Your task to perform on an android device: Clear the cart on target. Add "logitech g910" to the cart on target Image 0: 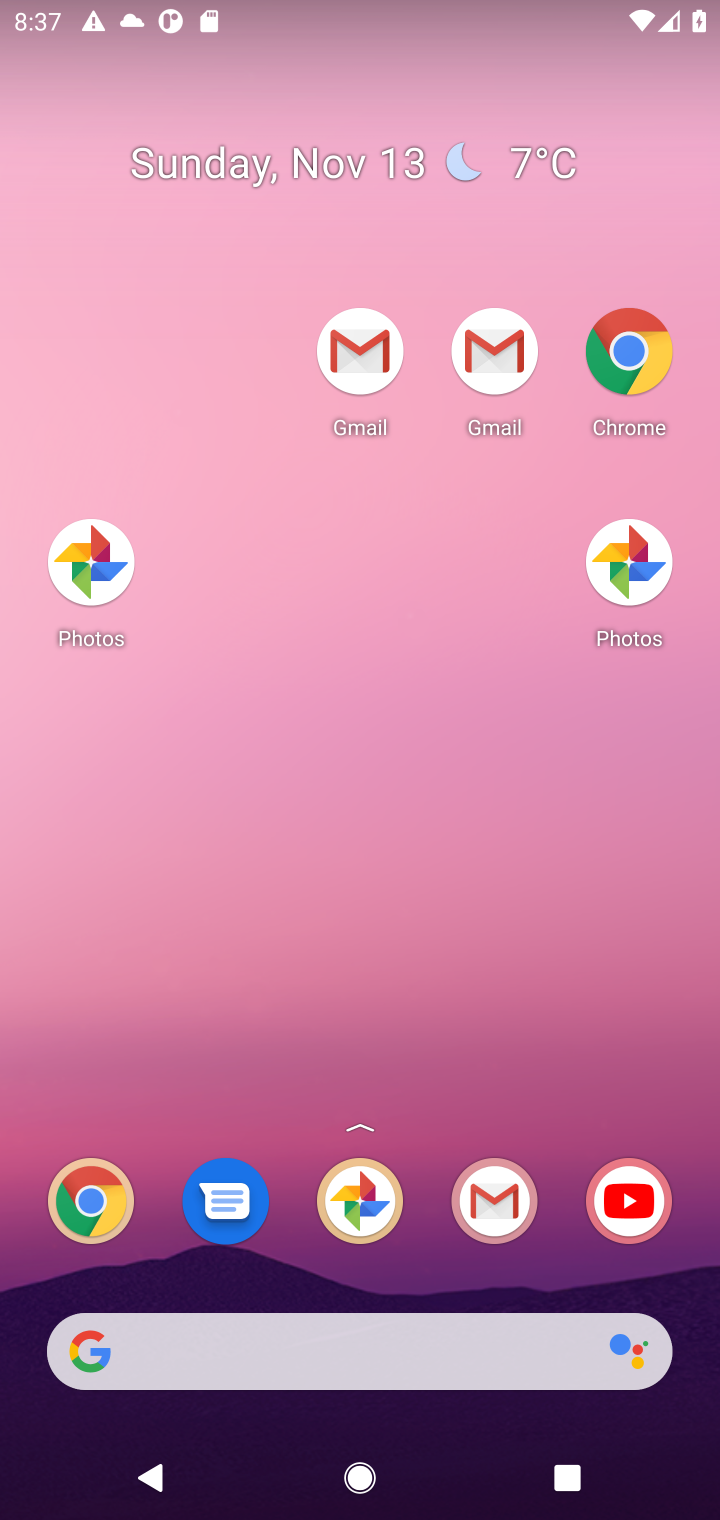
Step 0: drag from (443, 1103) to (255, 151)
Your task to perform on an android device: Clear the cart on target. Add "logitech g910" to the cart on target Image 1: 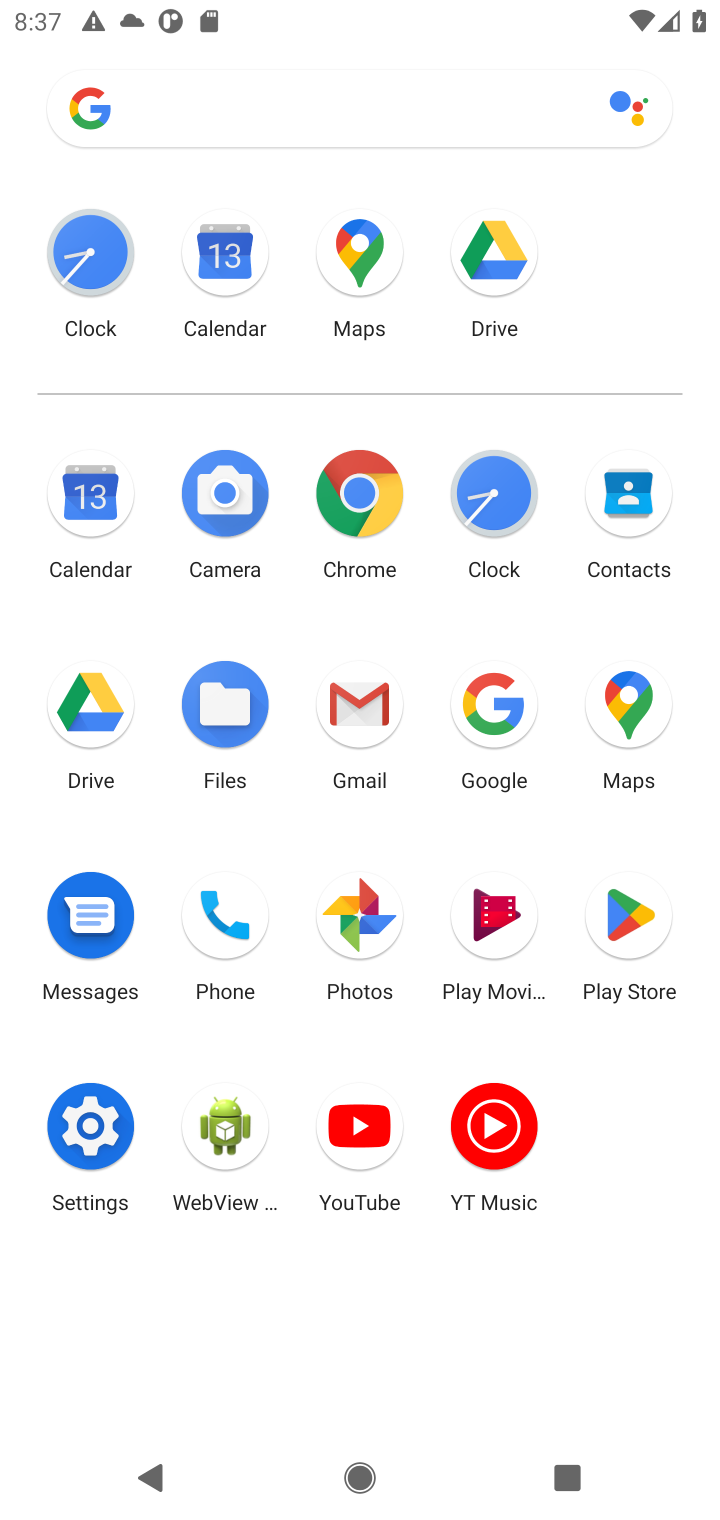
Step 1: click (358, 499)
Your task to perform on an android device: Clear the cart on target. Add "logitech g910" to the cart on target Image 2: 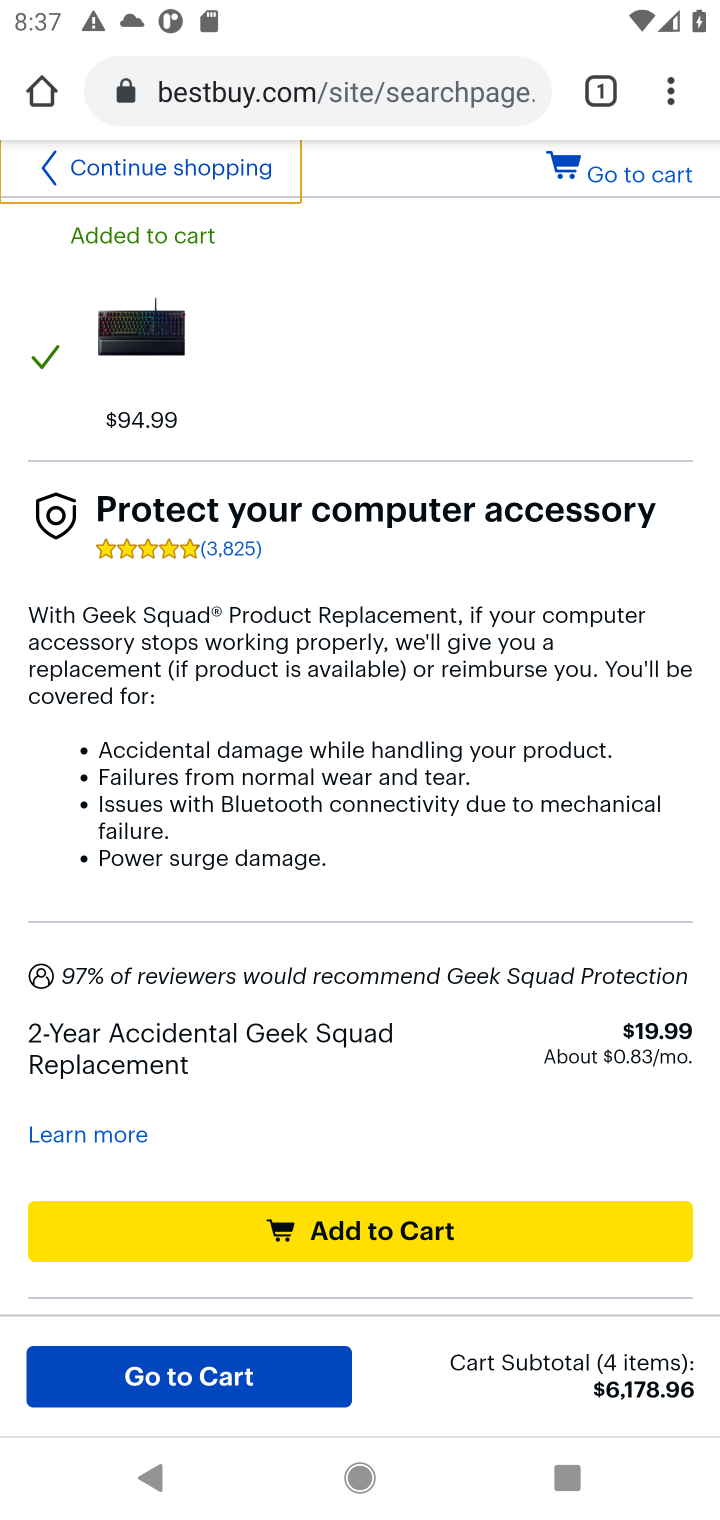
Step 2: click (366, 76)
Your task to perform on an android device: Clear the cart on target. Add "logitech g910" to the cart on target Image 3: 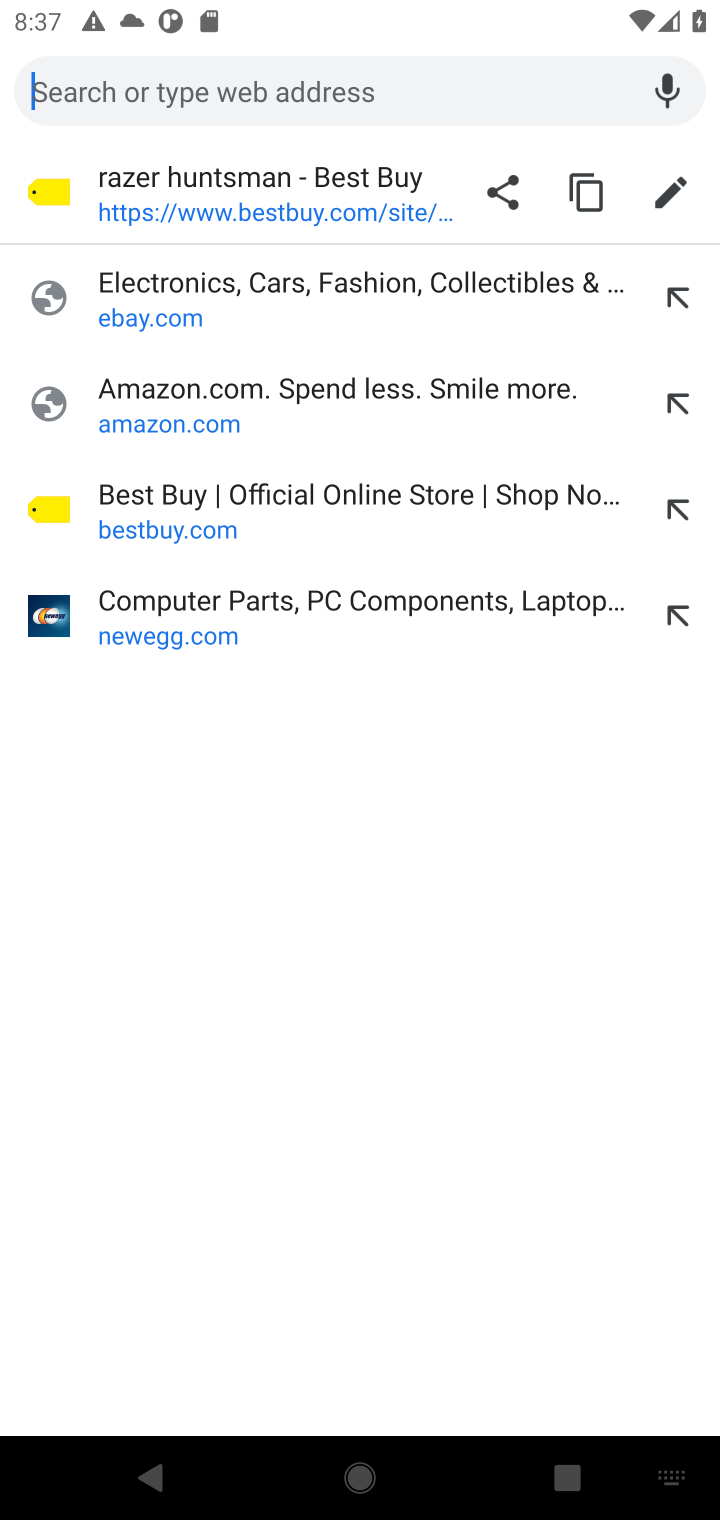
Step 3: type "target.com"
Your task to perform on an android device: Clear the cart on target. Add "logitech g910" to the cart on target Image 4: 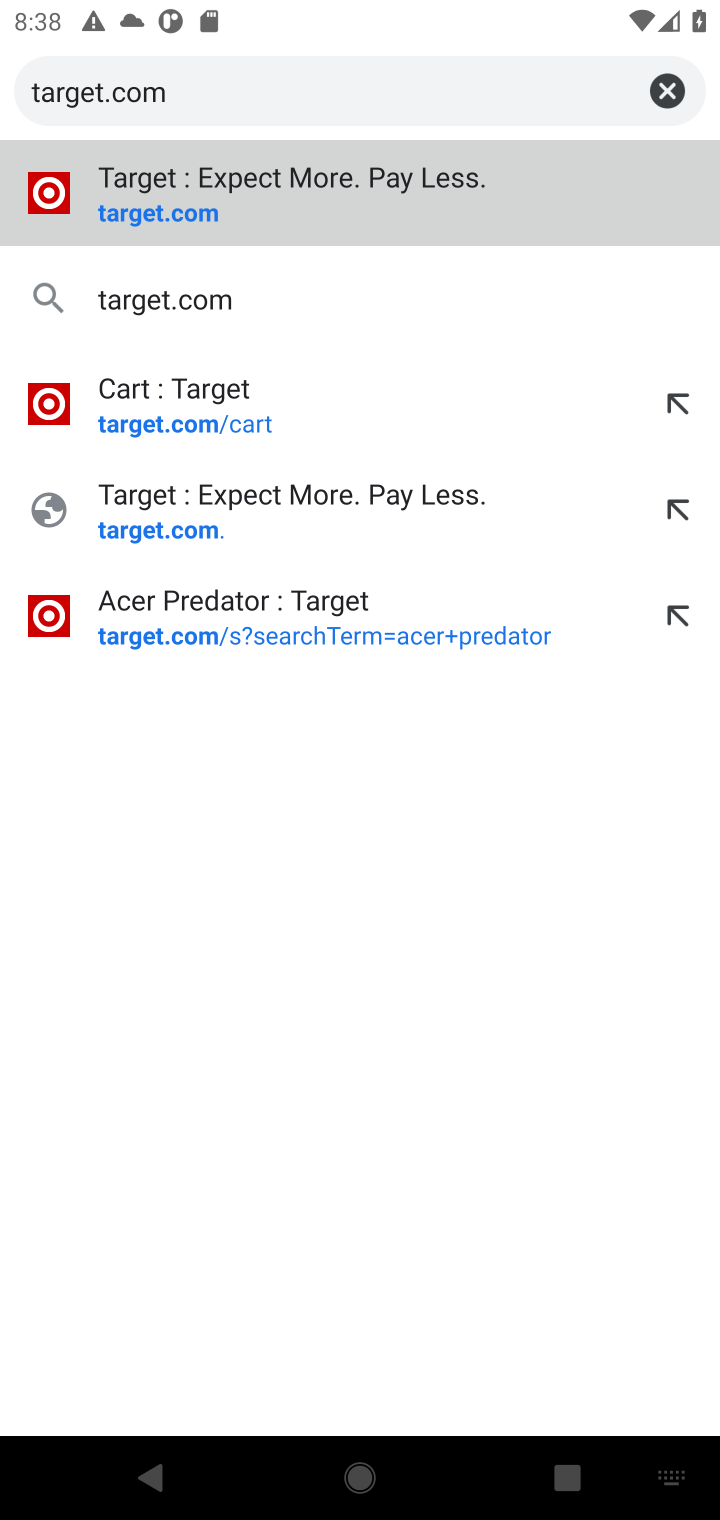
Step 4: press enter
Your task to perform on an android device: Clear the cart on target. Add "logitech g910" to the cart on target Image 5: 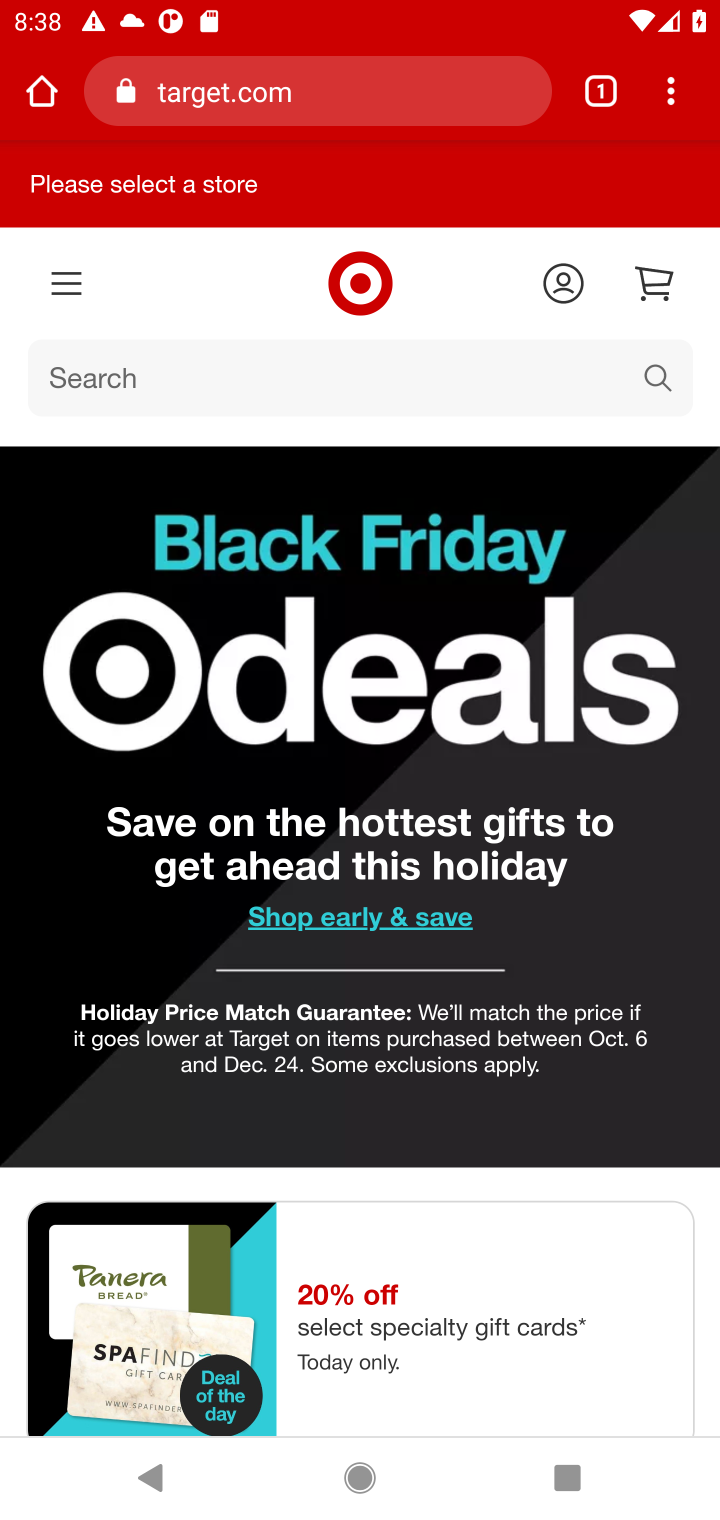
Step 5: click (661, 284)
Your task to perform on an android device: Clear the cart on target. Add "logitech g910" to the cart on target Image 6: 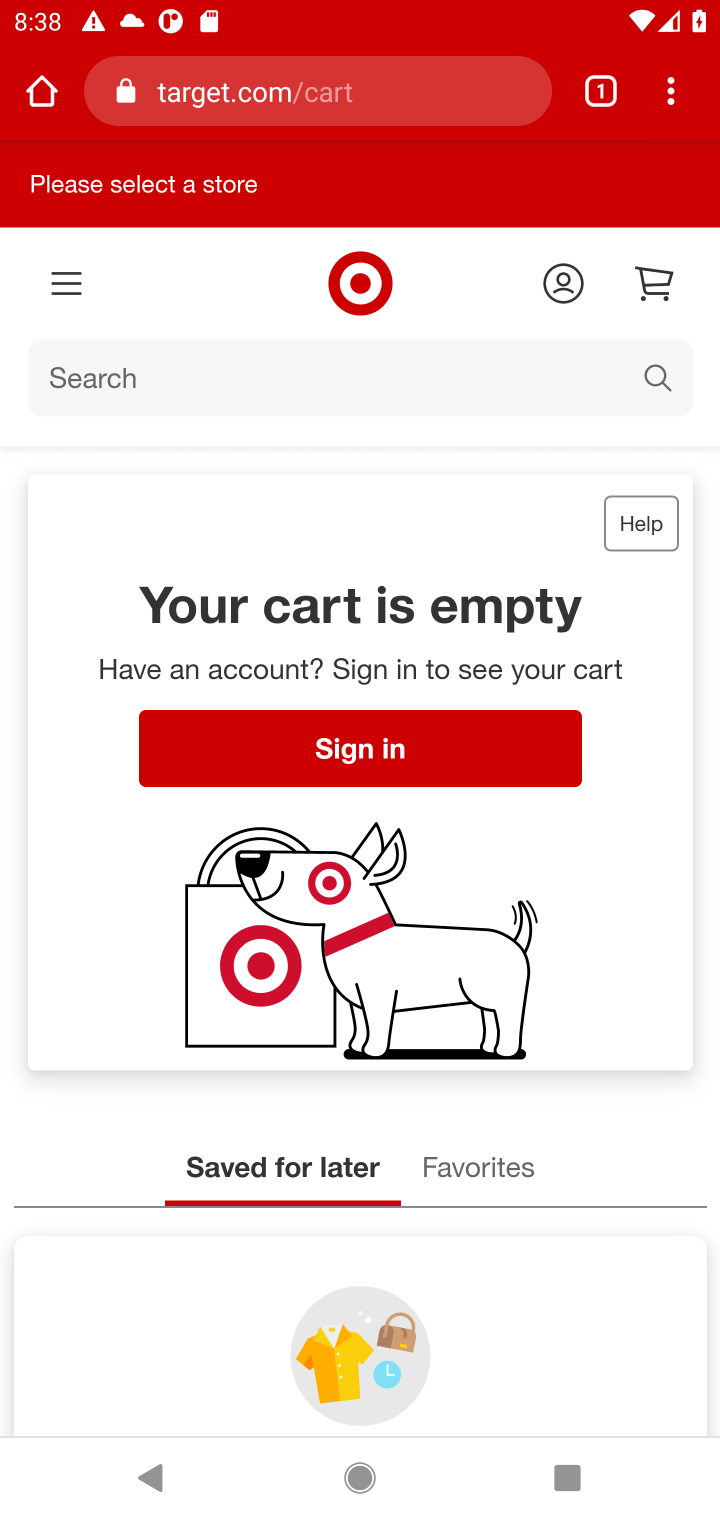
Step 6: click (471, 387)
Your task to perform on an android device: Clear the cart on target. Add "logitech g910" to the cart on target Image 7: 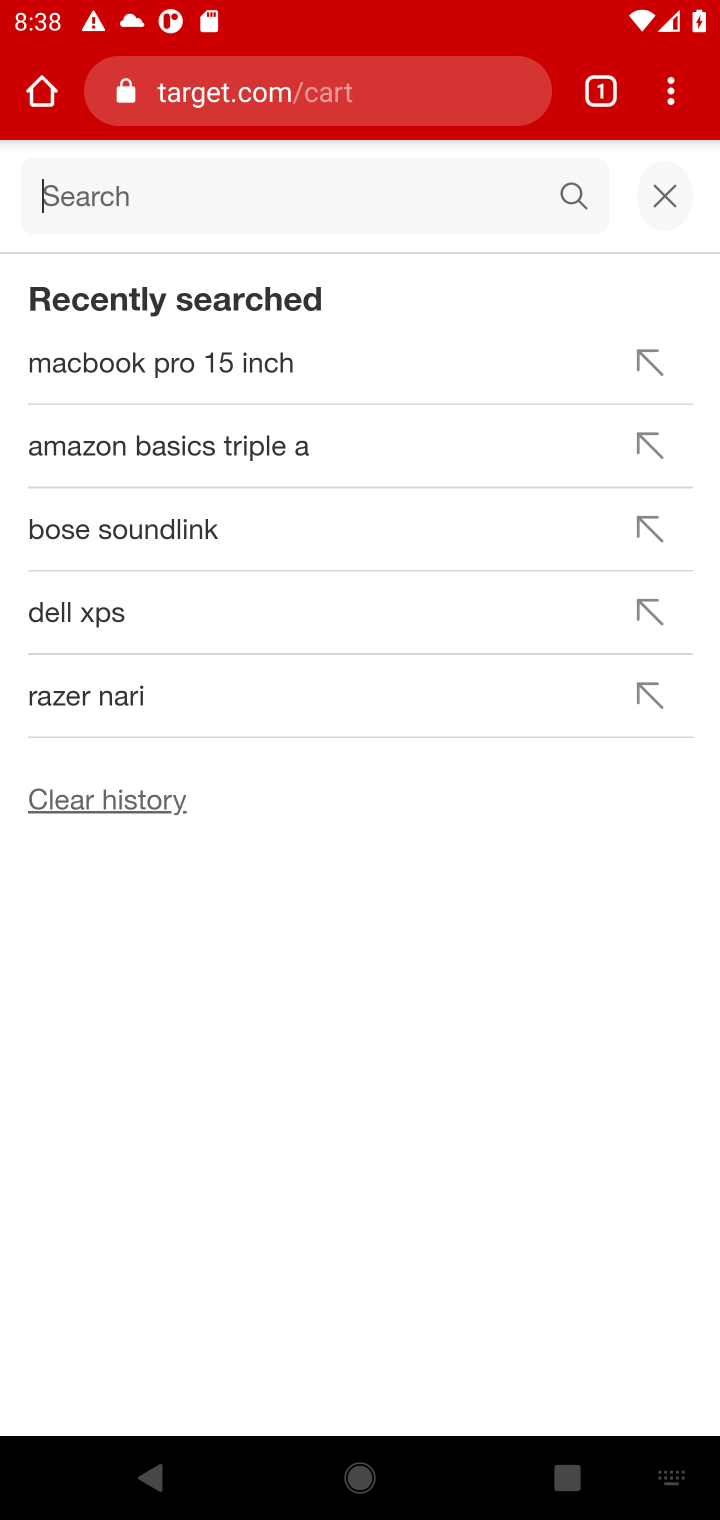
Step 7: type "logitech g910"
Your task to perform on an android device: Clear the cart on target. Add "logitech g910" to the cart on target Image 8: 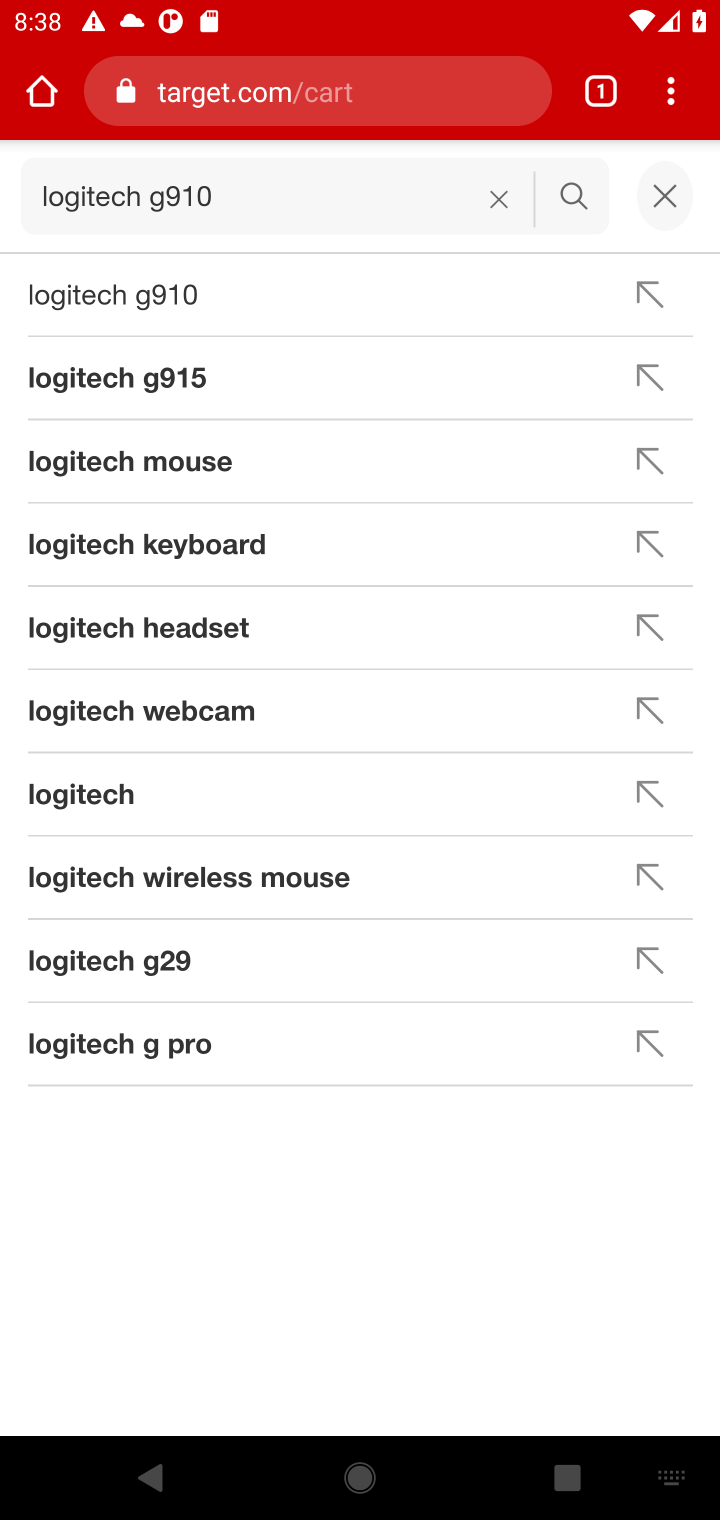
Step 8: press enter
Your task to perform on an android device: Clear the cart on target. Add "logitech g910" to the cart on target Image 9: 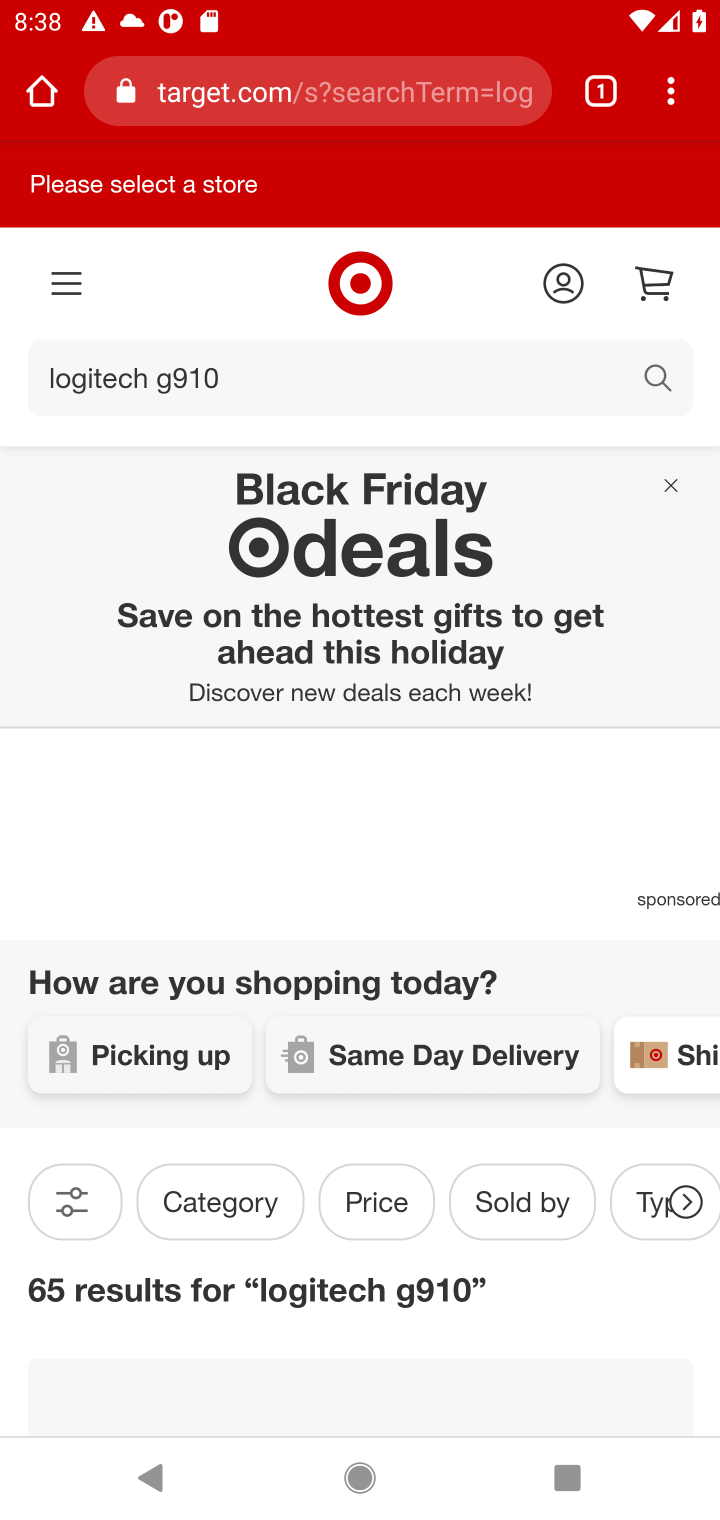
Step 9: drag from (336, 1332) to (416, 482)
Your task to perform on an android device: Clear the cart on target. Add "logitech g910" to the cart on target Image 10: 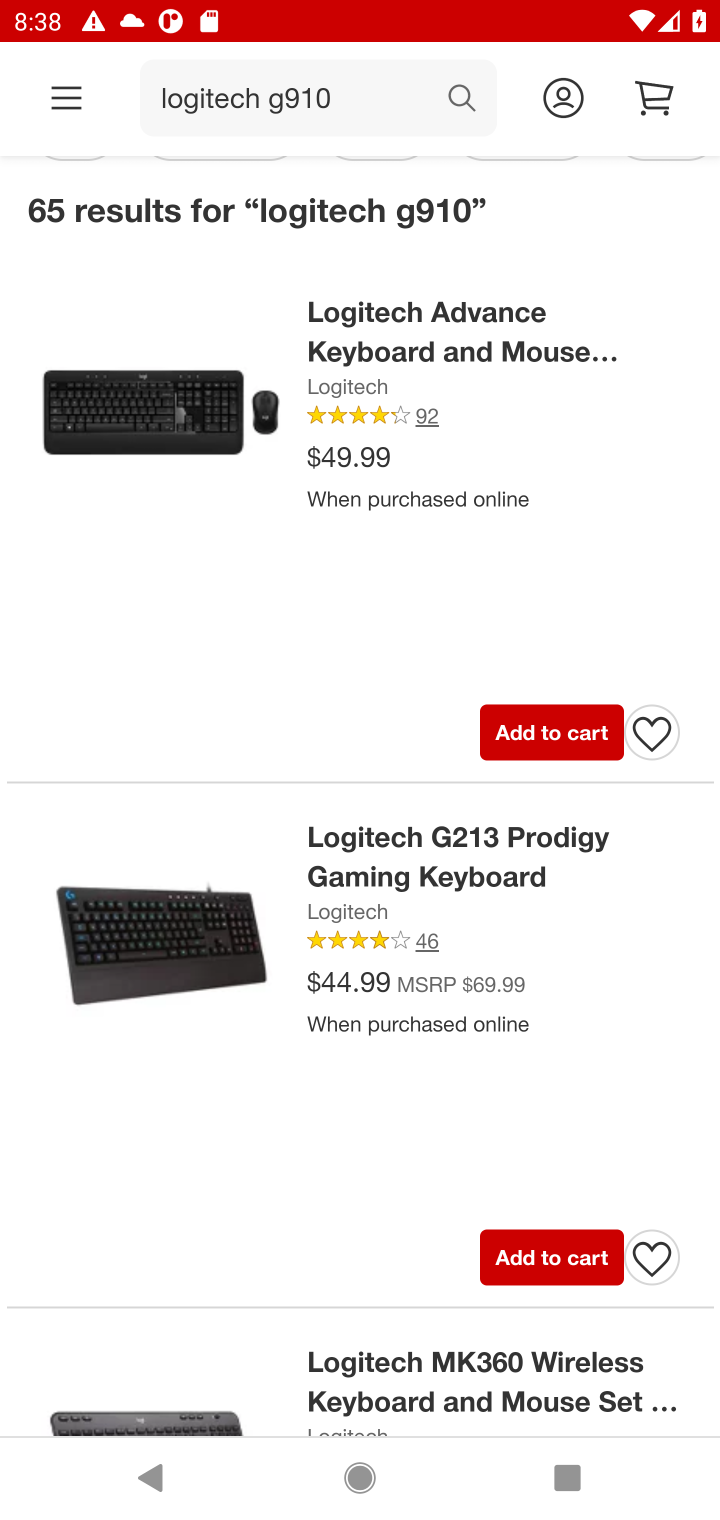
Step 10: drag from (375, 492) to (362, 390)
Your task to perform on an android device: Clear the cart on target. Add "logitech g910" to the cart on target Image 11: 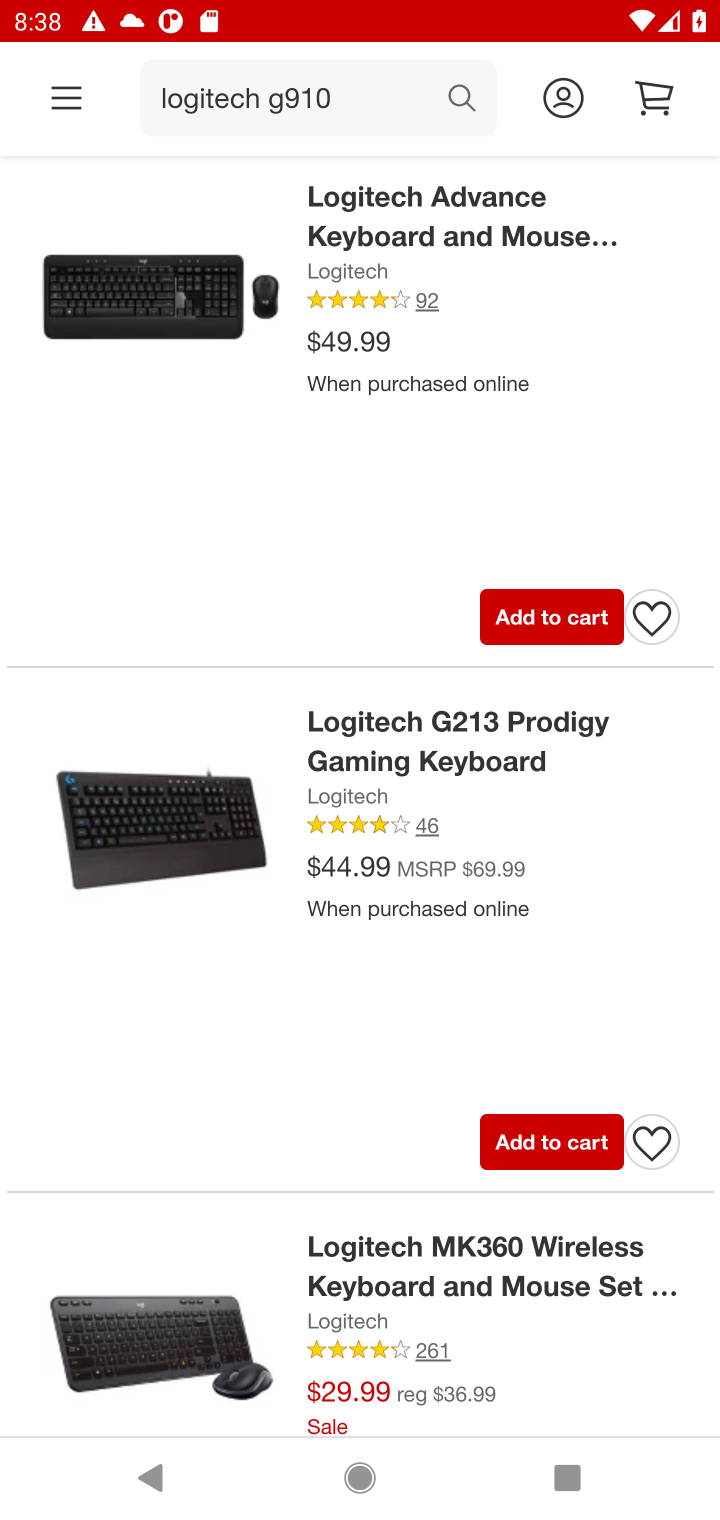
Step 11: drag from (267, 1060) to (332, 624)
Your task to perform on an android device: Clear the cart on target. Add "logitech g910" to the cart on target Image 12: 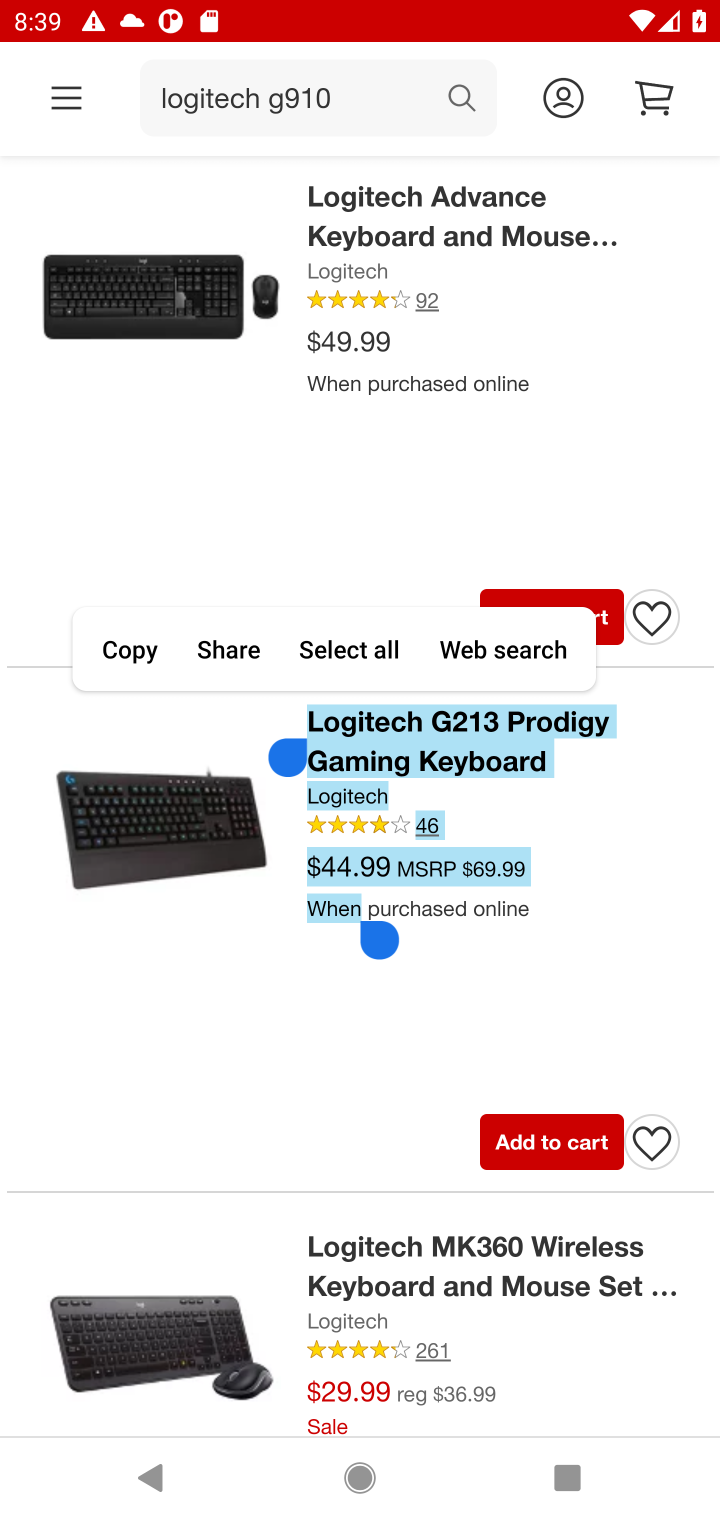
Step 12: drag from (272, 1093) to (294, 515)
Your task to perform on an android device: Clear the cart on target. Add "logitech g910" to the cart on target Image 13: 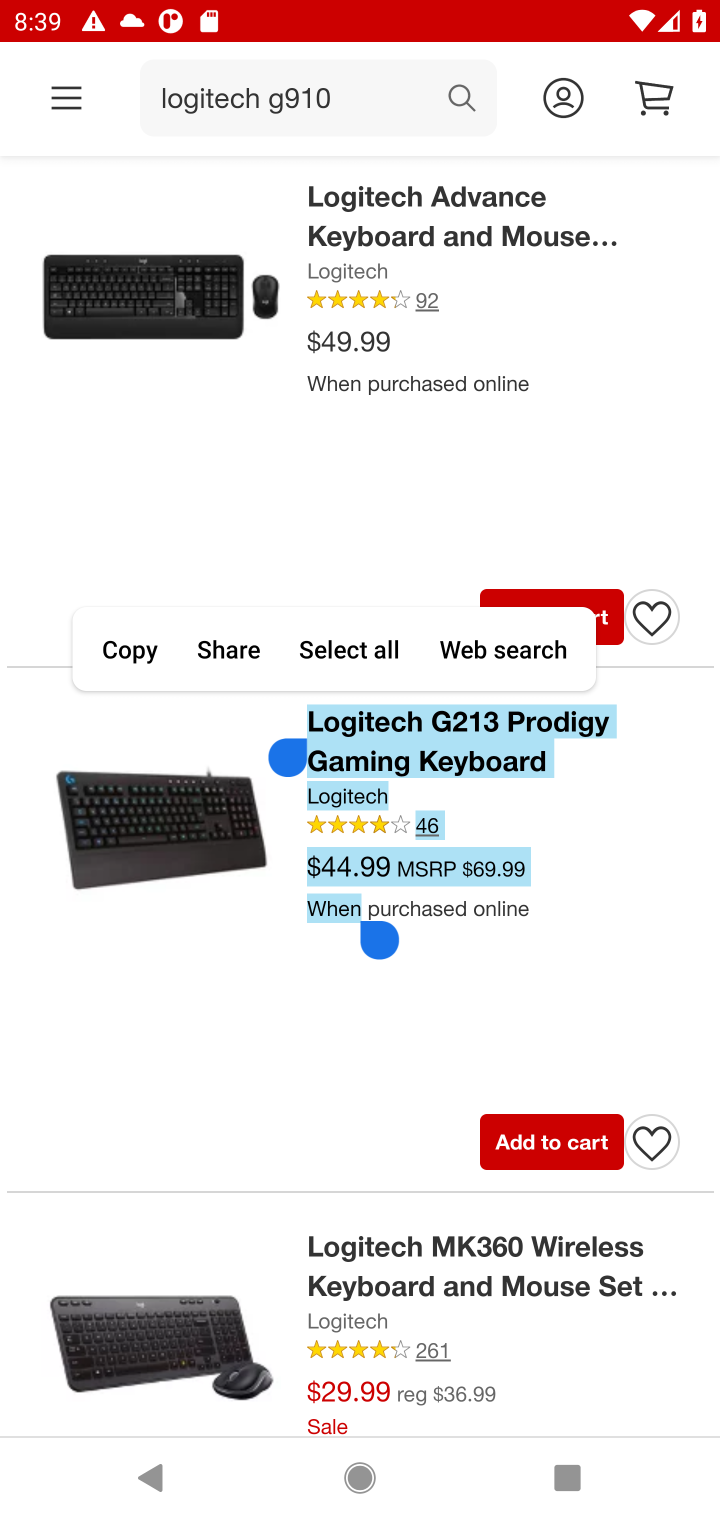
Step 13: click (628, 465)
Your task to perform on an android device: Clear the cart on target. Add "logitech g910" to the cart on target Image 14: 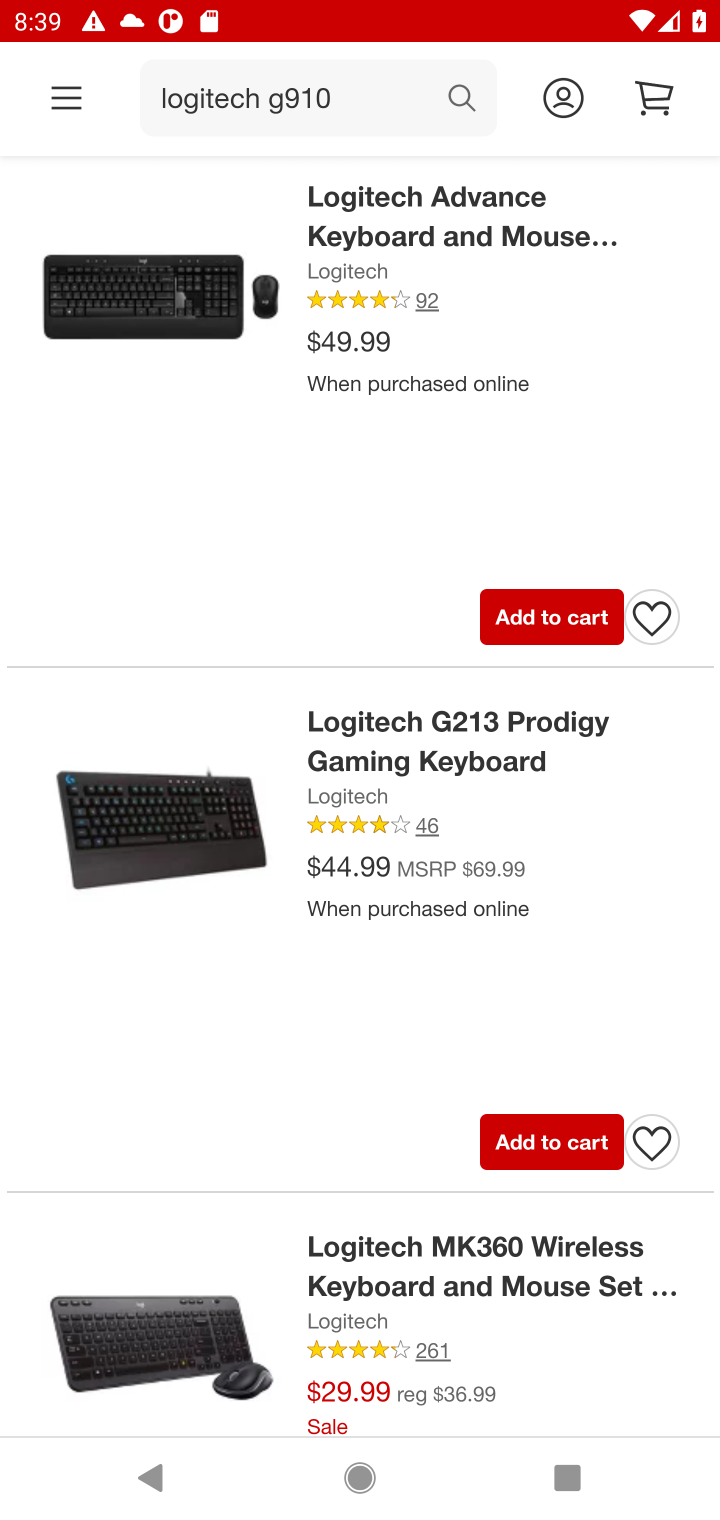
Step 14: task complete